Your task to perform on an android device: delete a single message in the gmail app Image 0: 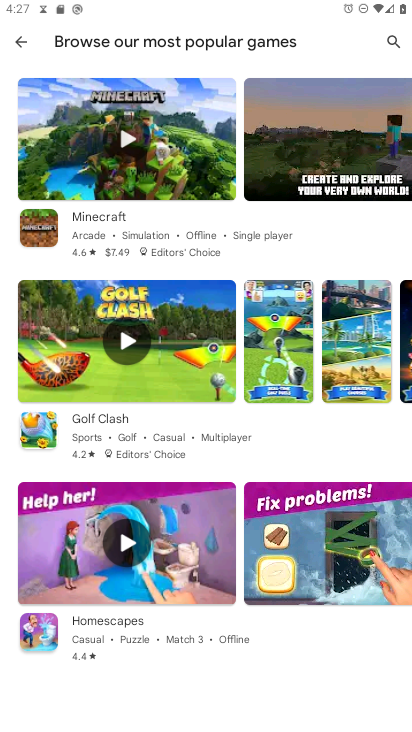
Step 0: press home button
Your task to perform on an android device: delete a single message in the gmail app Image 1: 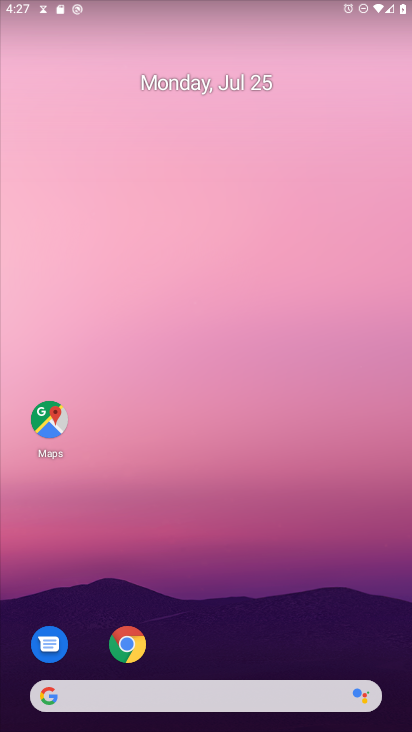
Step 1: drag from (262, 610) to (306, 75)
Your task to perform on an android device: delete a single message in the gmail app Image 2: 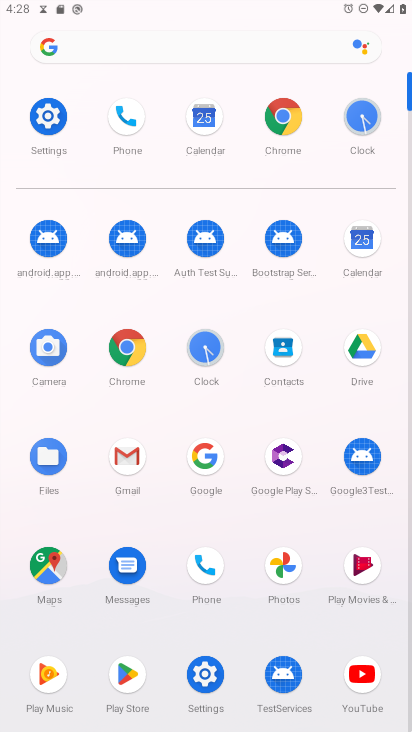
Step 2: click (118, 458)
Your task to perform on an android device: delete a single message in the gmail app Image 3: 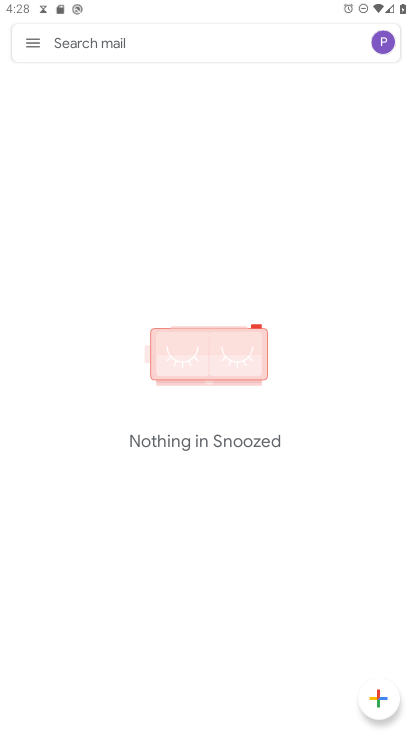
Step 3: click (27, 46)
Your task to perform on an android device: delete a single message in the gmail app Image 4: 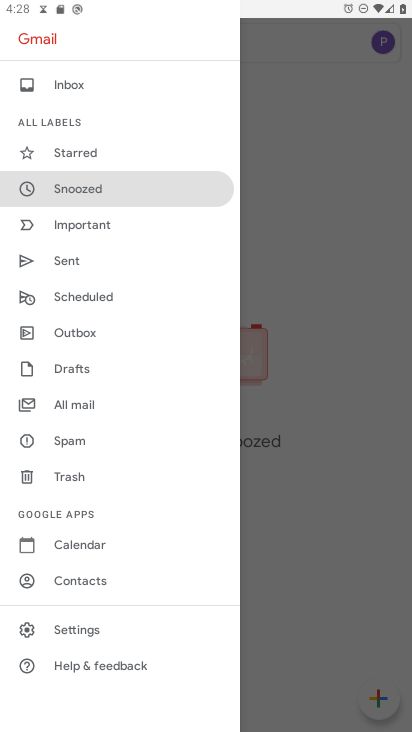
Step 4: click (79, 402)
Your task to perform on an android device: delete a single message in the gmail app Image 5: 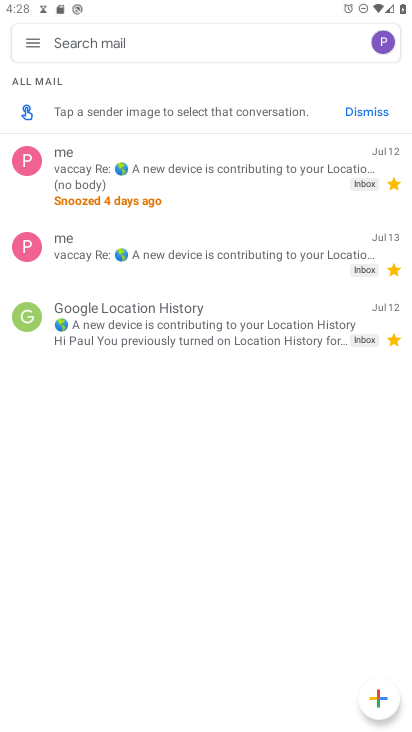
Step 5: click (256, 169)
Your task to perform on an android device: delete a single message in the gmail app Image 6: 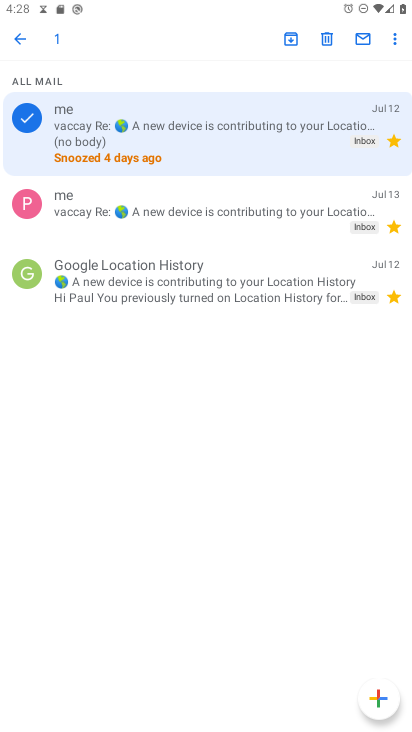
Step 6: click (321, 41)
Your task to perform on an android device: delete a single message in the gmail app Image 7: 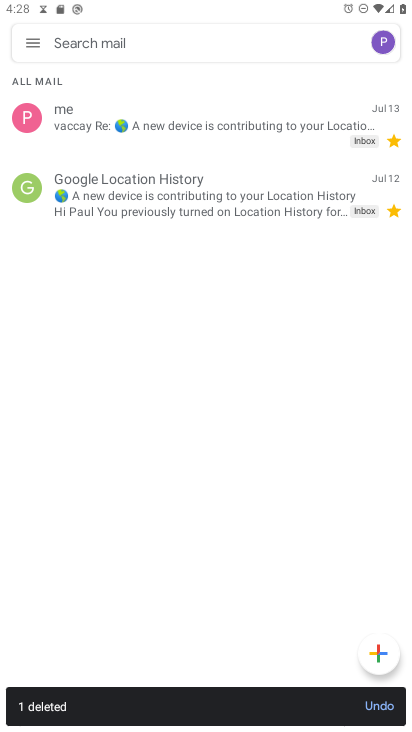
Step 7: task complete